Your task to perform on an android device: Turn off the flashlight Image 0: 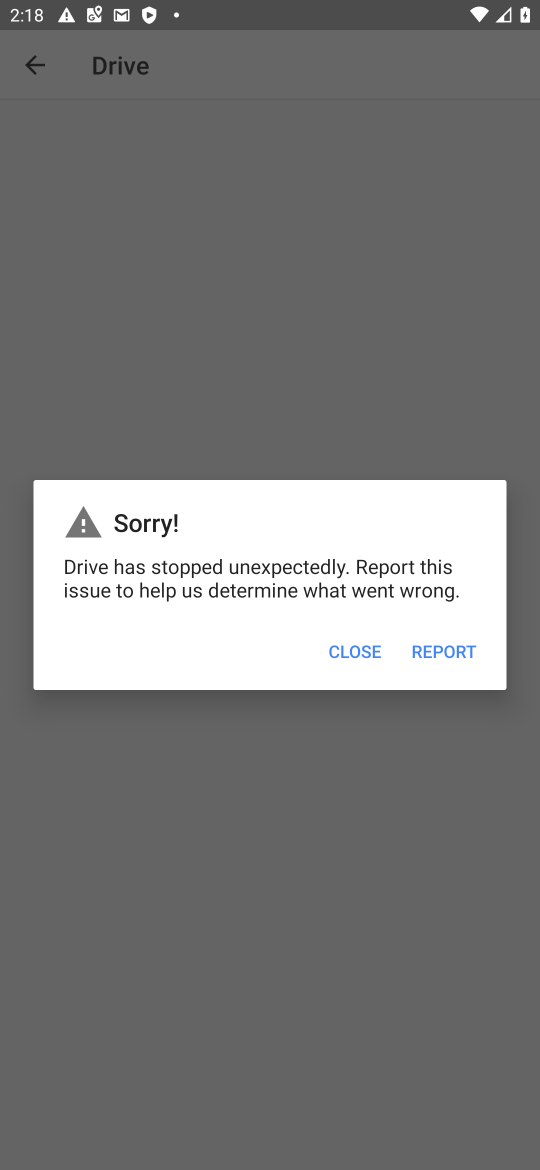
Step 0: press home button
Your task to perform on an android device: Turn off the flashlight Image 1: 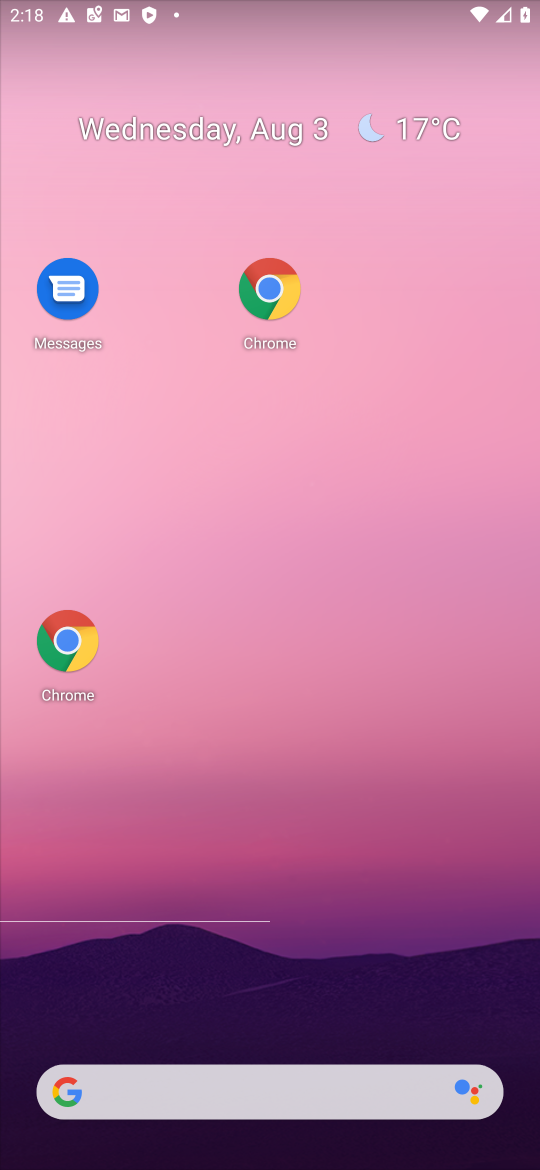
Step 1: drag from (282, 1038) to (288, 226)
Your task to perform on an android device: Turn off the flashlight Image 2: 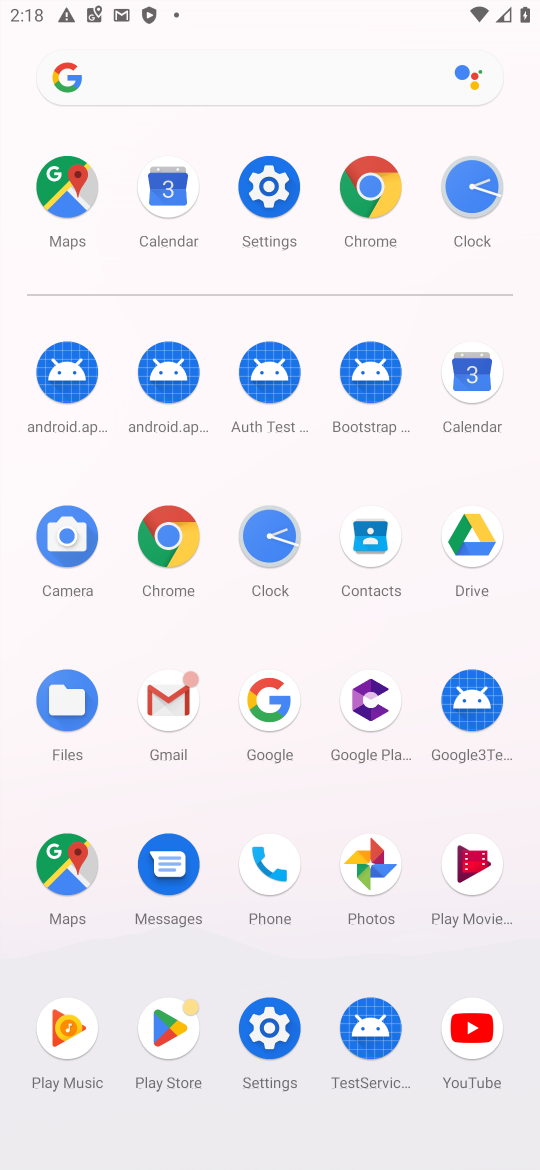
Step 2: click (288, 1051)
Your task to perform on an android device: Turn off the flashlight Image 3: 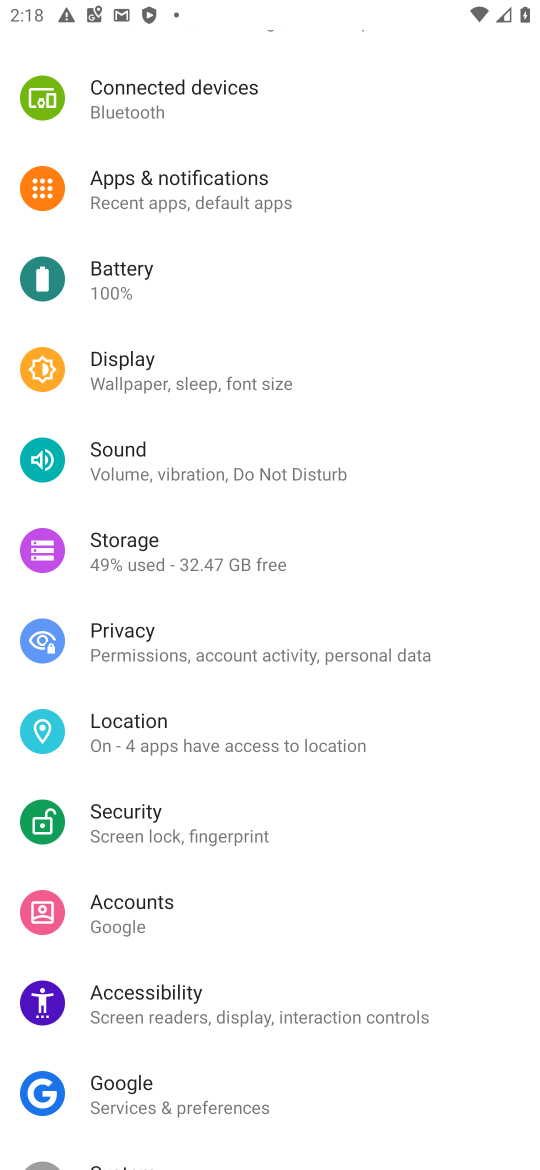
Step 3: task complete